Your task to perform on an android device: uninstall "Firefox Browser" Image 0: 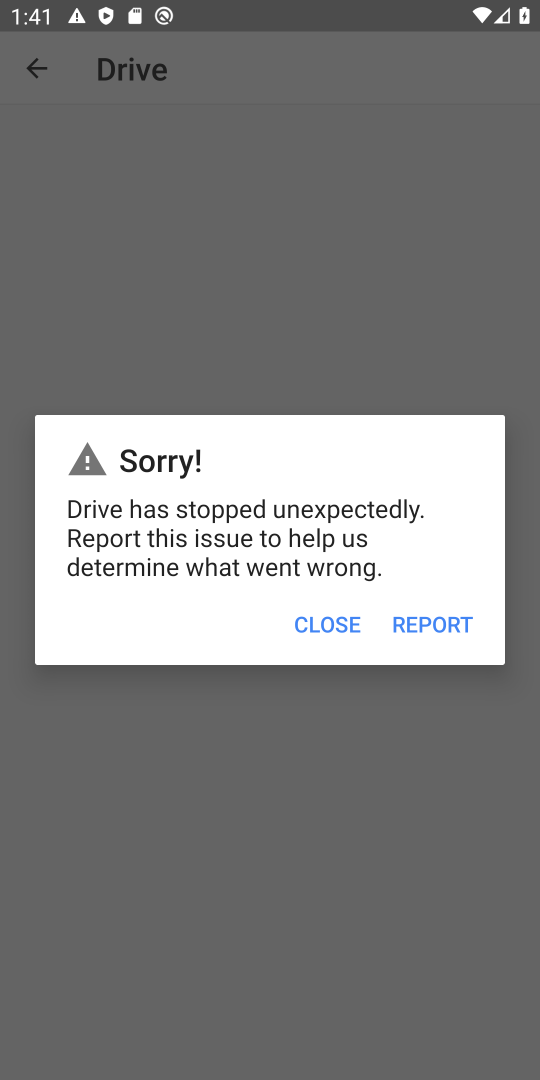
Step 0: press home button
Your task to perform on an android device: uninstall "Firefox Browser" Image 1: 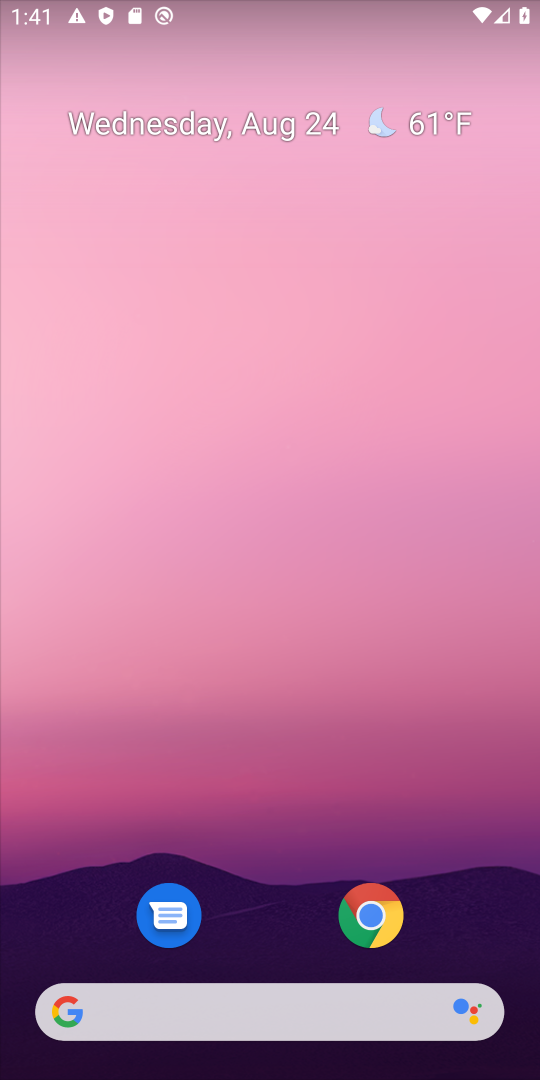
Step 1: drag from (284, 894) to (269, 291)
Your task to perform on an android device: uninstall "Firefox Browser" Image 2: 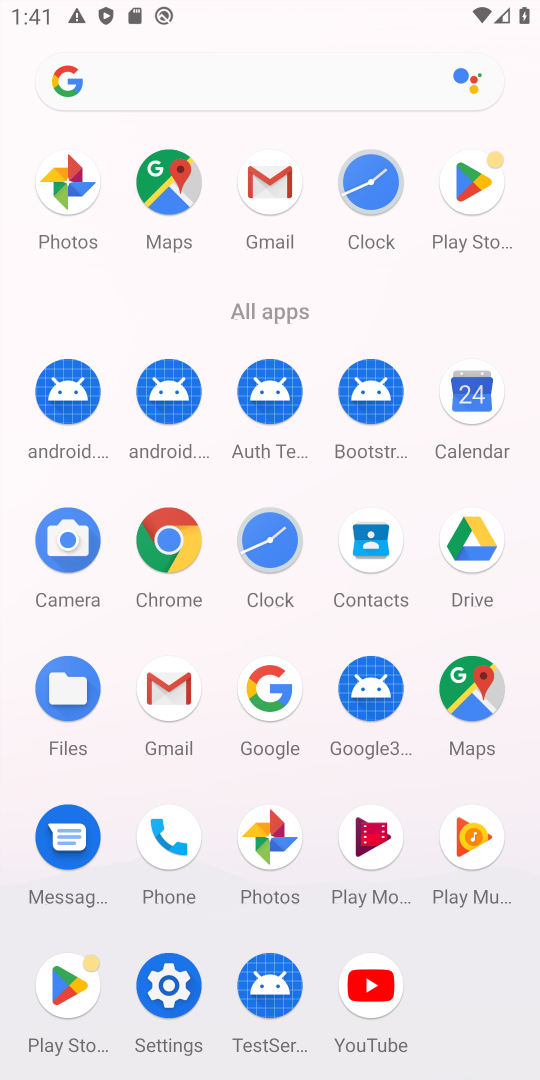
Step 2: click (457, 196)
Your task to perform on an android device: uninstall "Firefox Browser" Image 3: 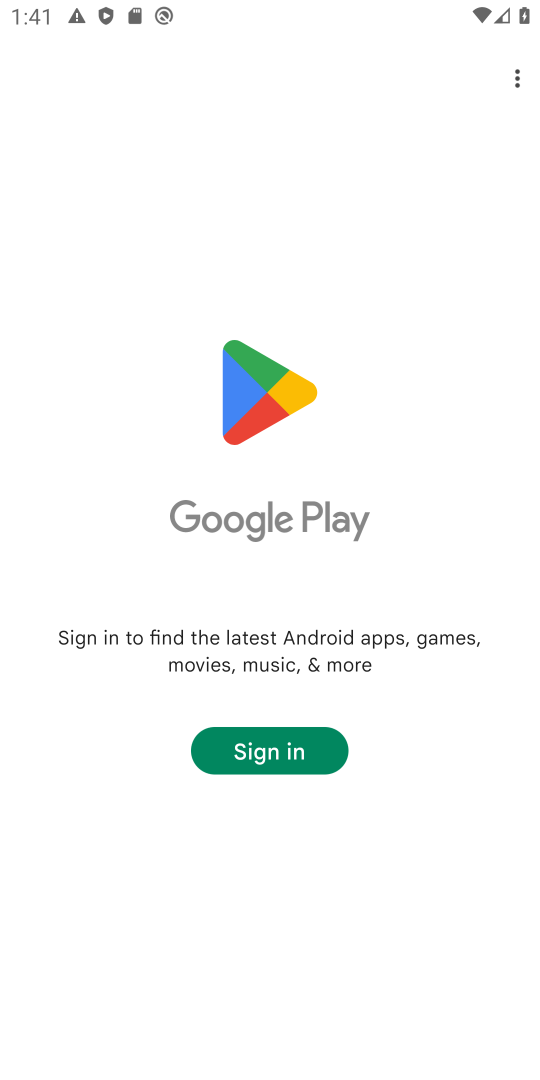
Step 3: task complete